Your task to perform on an android device: toggle location history Image 0: 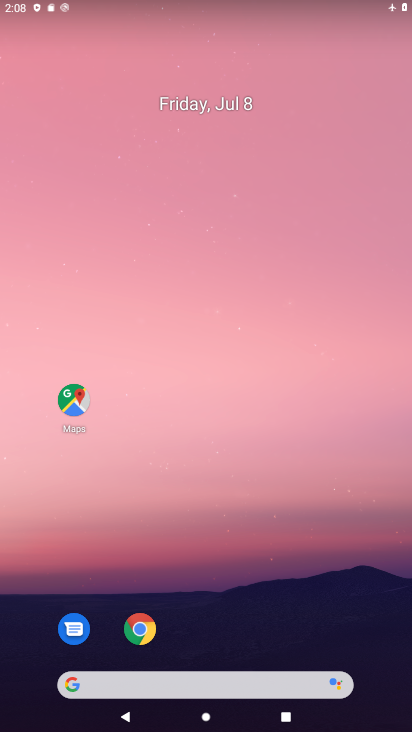
Step 0: drag from (118, 544) to (259, 5)
Your task to perform on an android device: toggle location history Image 1: 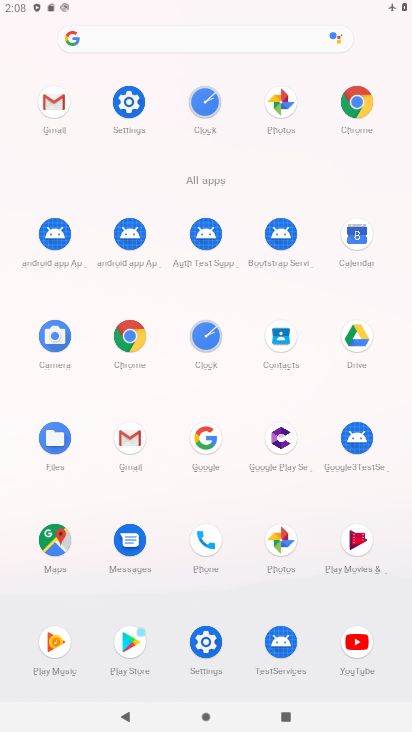
Step 1: click (185, 645)
Your task to perform on an android device: toggle location history Image 2: 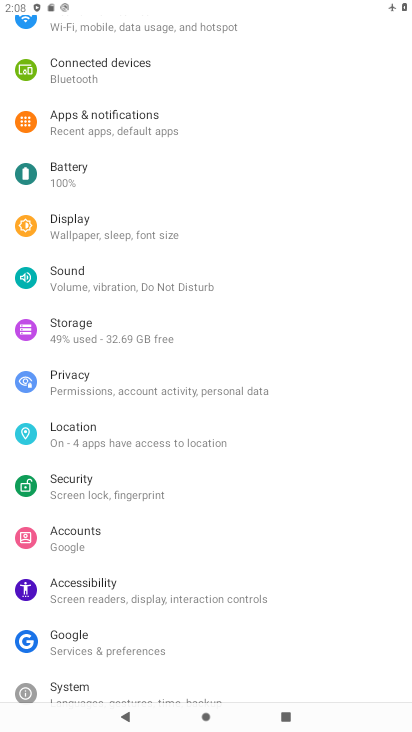
Step 2: click (93, 430)
Your task to perform on an android device: toggle location history Image 3: 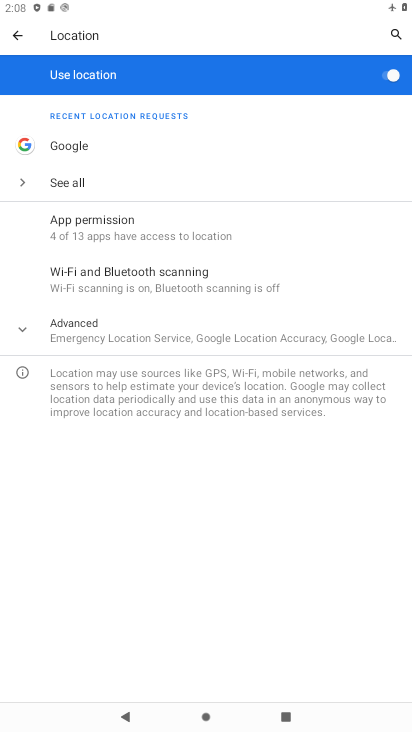
Step 3: task complete